Your task to perform on an android device: Show me popular games on the Play Store Image 0: 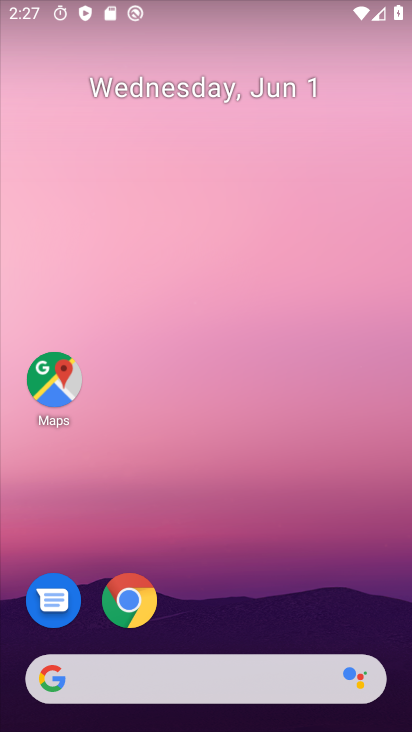
Step 0: drag from (258, 667) to (185, 192)
Your task to perform on an android device: Show me popular games on the Play Store Image 1: 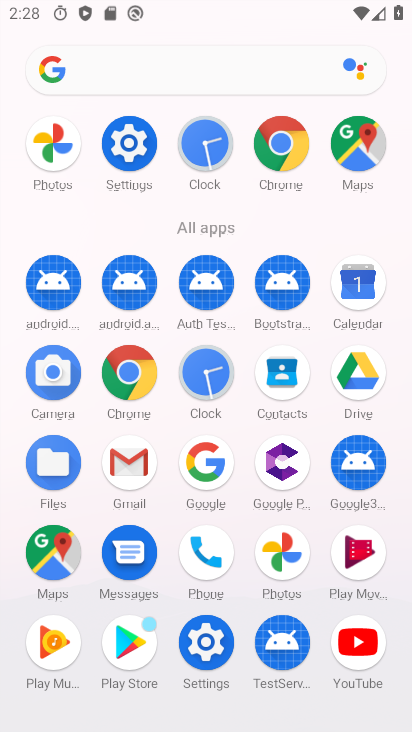
Step 1: click (126, 642)
Your task to perform on an android device: Show me popular games on the Play Store Image 2: 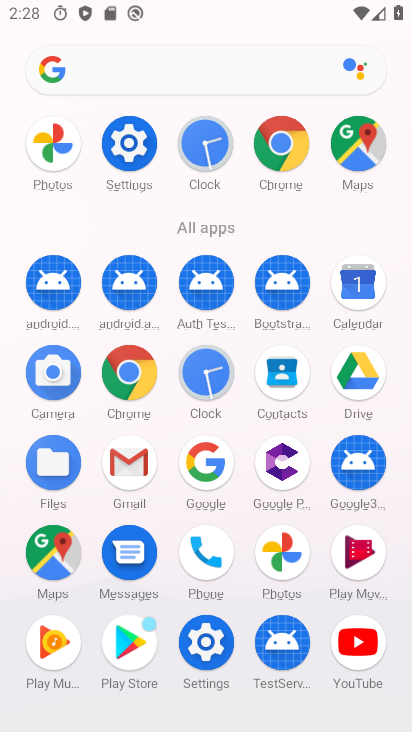
Step 2: click (131, 642)
Your task to perform on an android device: Show me popular games on the Play Store Image 3: 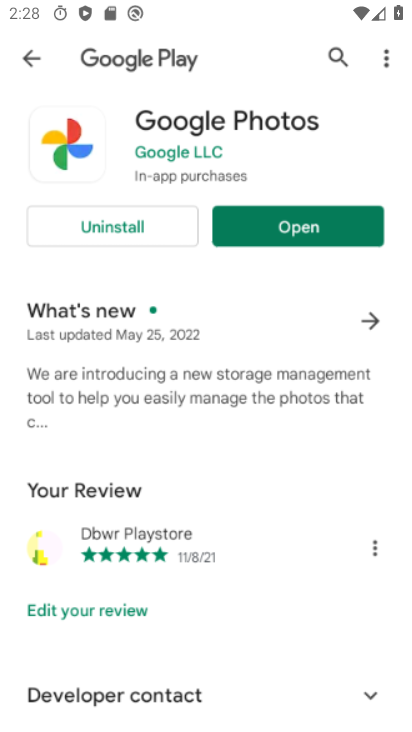
Step 3: click (131, 642)
Your task to perform on an android device: Show me popular games on the Play Store Image 4: 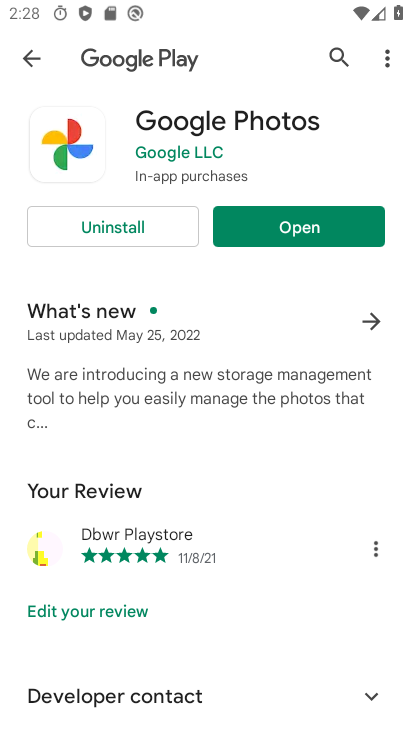
Step 4: click (316, 235)
Your task to perform on an android device: Show me popular games on the Play Store Image 5: 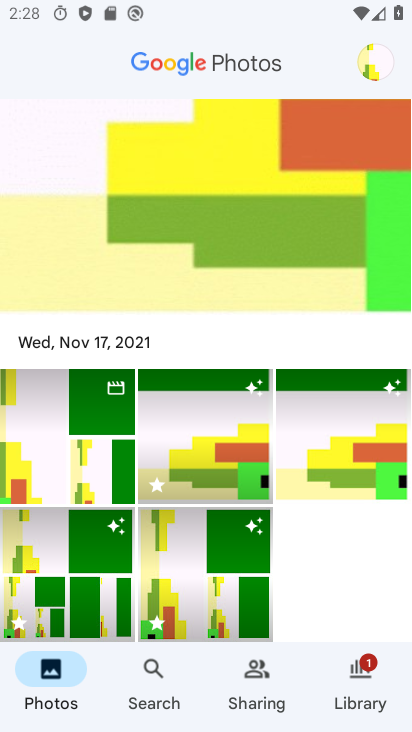
Step 5: press back button
Your task to perform on an android device: Show me popular games on the Play Store Image 6: 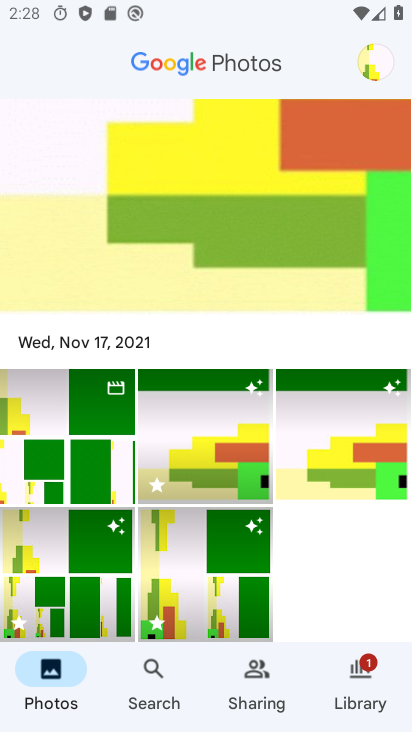
Step 6: press back button
Your task to perform on an android device: Show me popular games on the Play Store Image 7: 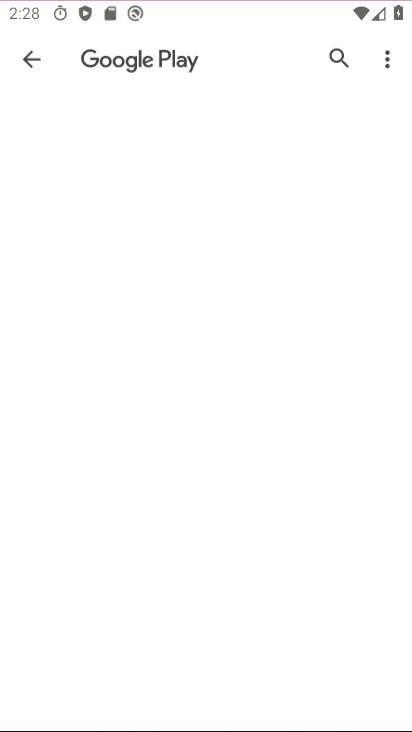
Step 7: press back button
Your task to perform on an android device: Show me popular games on the Play Store Image 8: 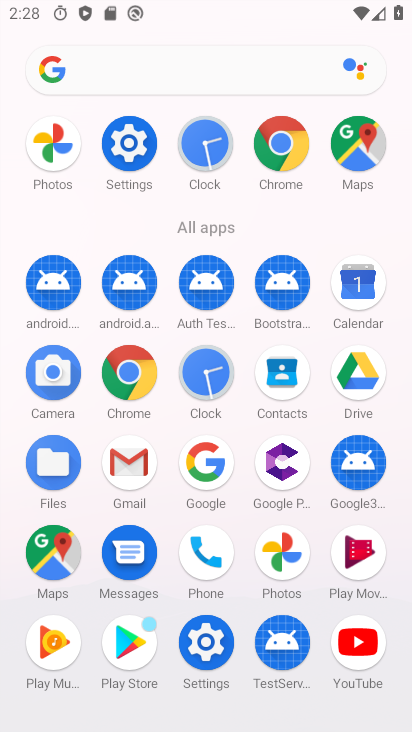
Step 8: press back button
Your task to perform on an android device: Show me popular games on the Play Store Image 9: 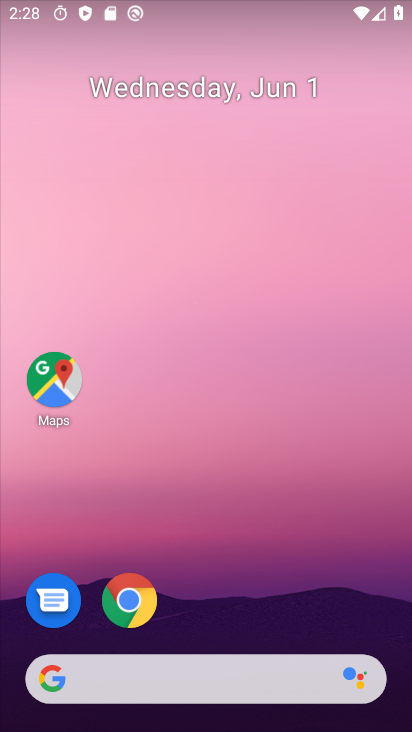
Step 9: press back button
Your task to perform on an android device: Show me popular games on the Play Store Image 10: 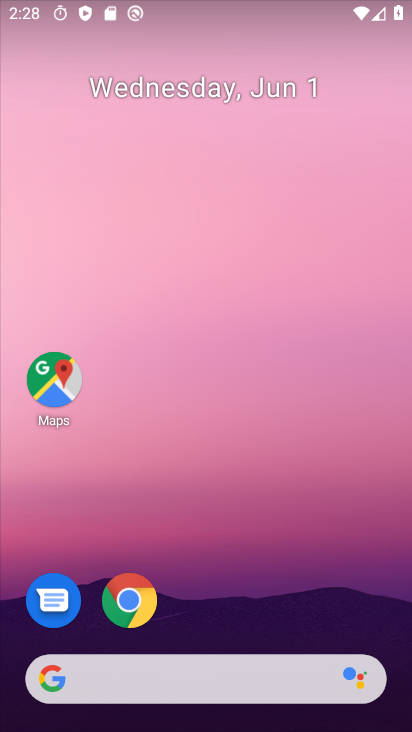
Step 10: drag from (285, 709) to (104, 153)
Your task to perform on an android device: Show me popular games on the Play Store Image 11: 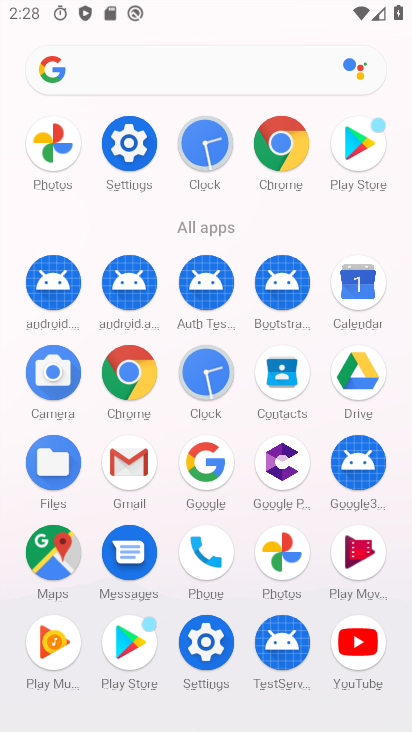
Step 11: click (130, 635)
Your task to perform on an android device: Show me popular games on the Play Store Image 12: 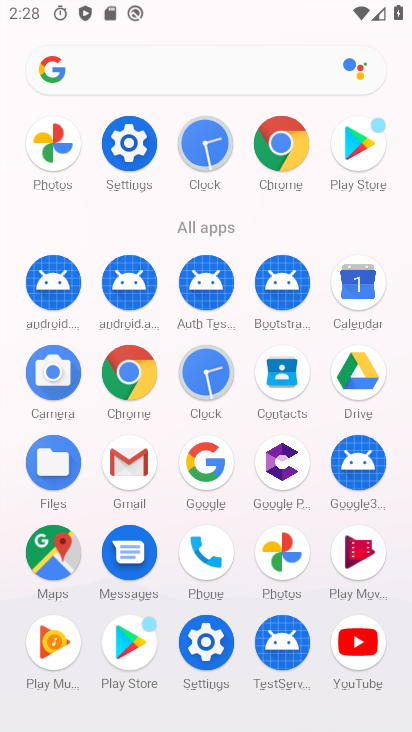
Step 12: click (130, 635)
Your task to perform on an android device: Show me popular games on the Play Store Image 13: 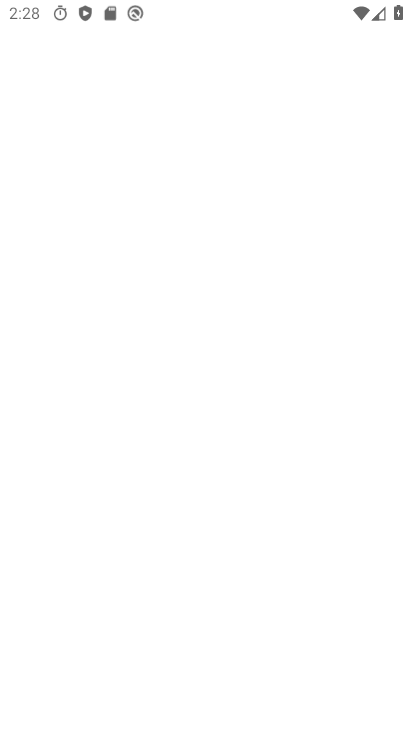
Step 13: click (129, 635)
Your task to perform on an android device: Show me popular games on the Play Store Image 14: 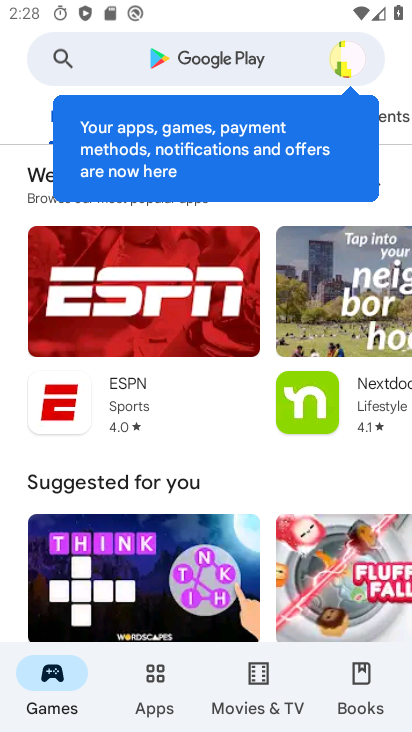
Step 14: click (141, 50)
Your task to perform on an android device: Show me popular games on the Play Store Image 15: 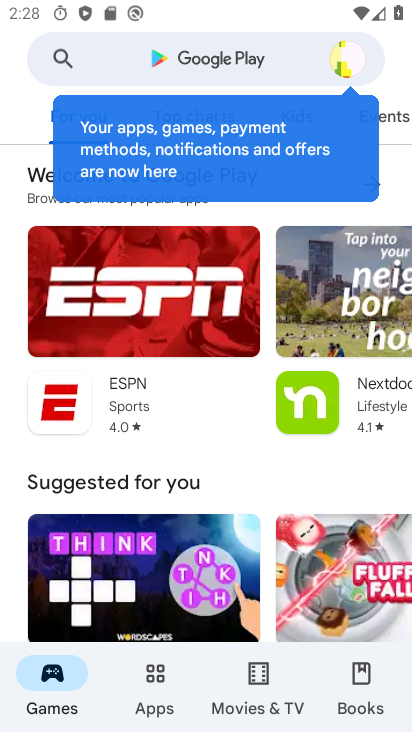
Step 15: drag from (141, 68) to (167, 139)
Your task to perform on an android device: Show me popular games on the Play Store Image 16: 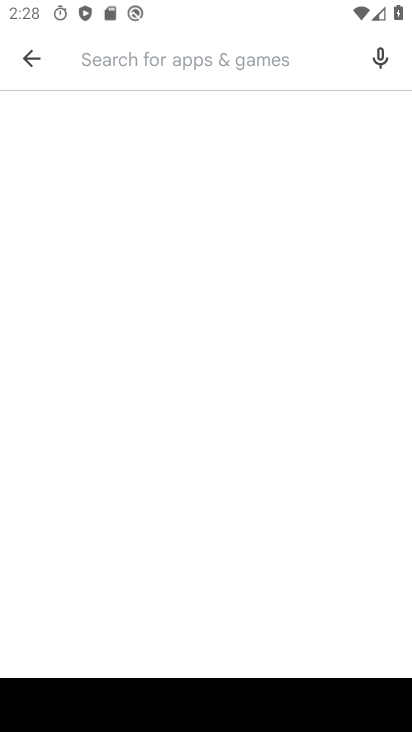
Step 16: click (90, 50)
Your task to perform on an android device: Show me popular games on the Play Store Image 17: 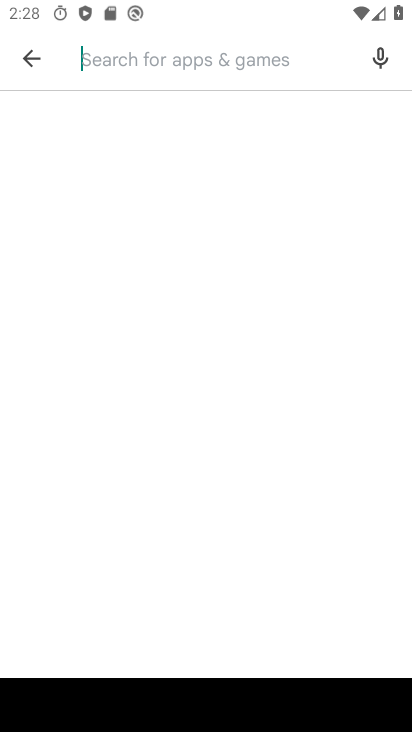
Step 17: type "popular games"
Your task to perform on an android device: Show me popular games on the Play Store Image 18: 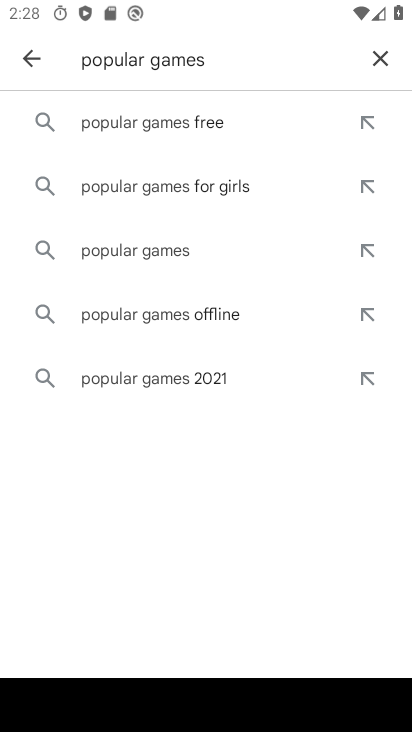
Step 18: click (203, 115)
Your task to perform on an android device: Show me popular games on the Play Store Image 19: 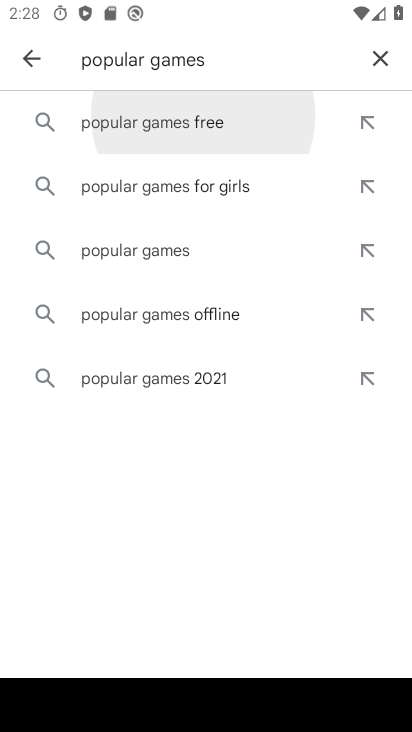
Step 19: click (185, 116)
Your task to perform on an android device: Show me popular games on the Play Store Image 20: 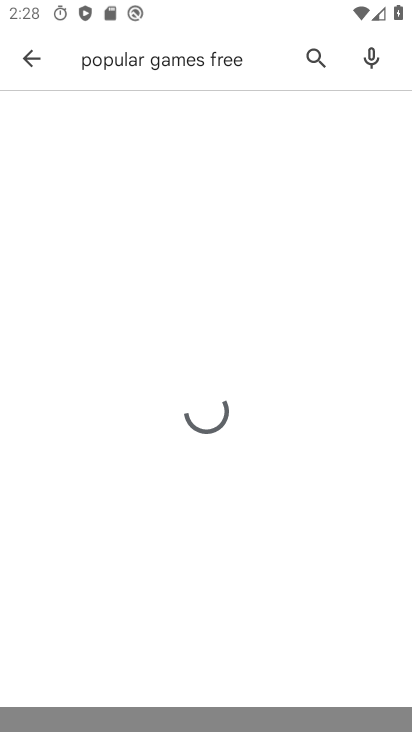
Step 20: click (182, 124)
Your task to perform on an android device: Show me popular games on the Play Store Image 21: 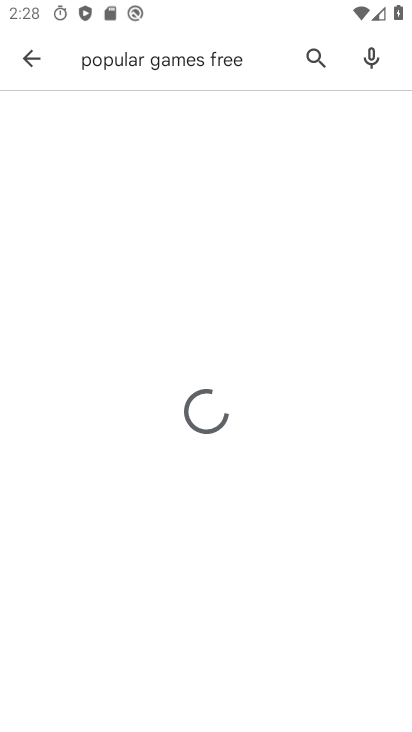
Step 21: click (182, 139)
Your task to perform on an android device: Show me popular games on the Play Store Image 22: 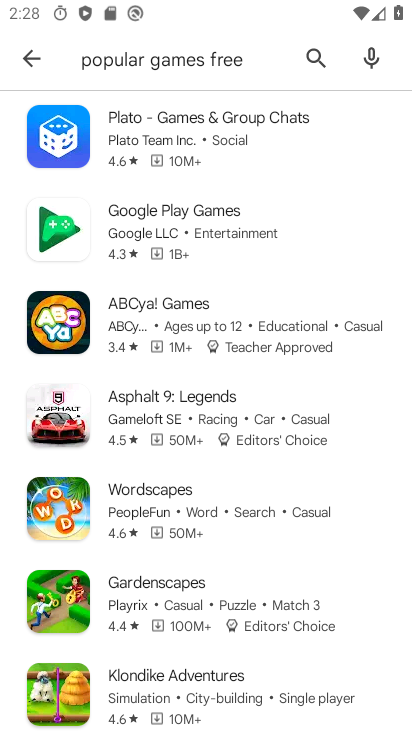
Step 22: task complete